Your task to perform on an android device: Is it going to rain tomorrow? Image 0: 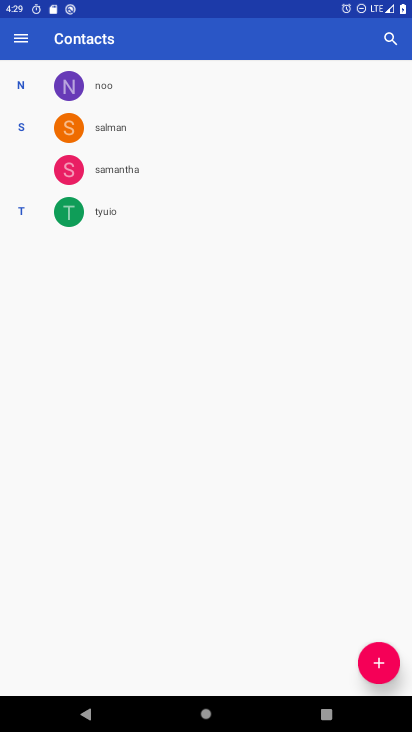
Step 0: press home button
Your task to perform on an android device: Is it going to rain tomorrow? Image 1: 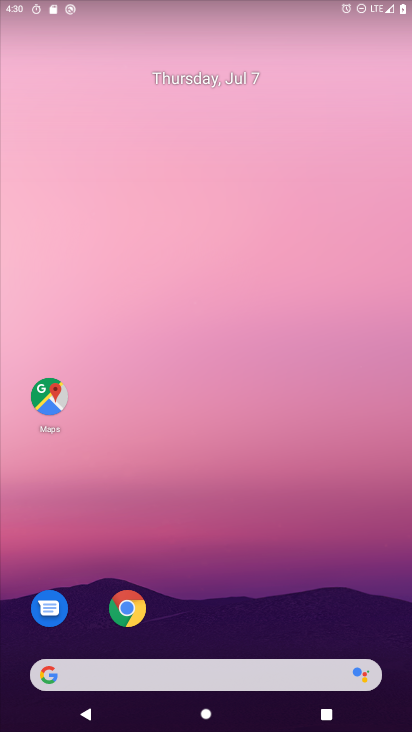
Step 1: drag from (242, 698) to (226, 113)
Your task to perform on an android device: Is it going to rain tomorrow? Image 2: 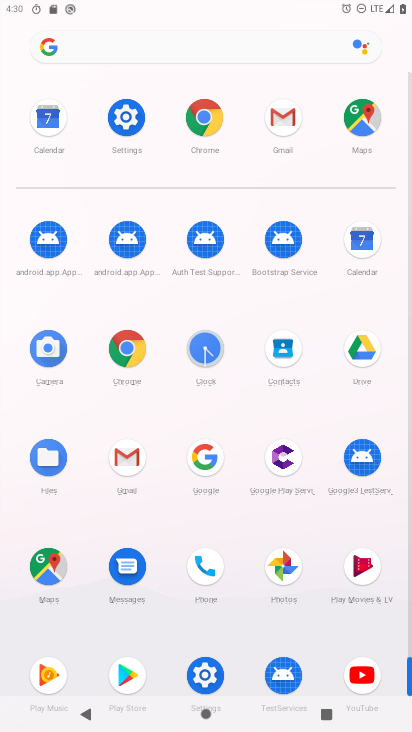
Step 2: click (201, 456)
Your task to perform on an android device: Is it going to rain tomorrow? Image 3: 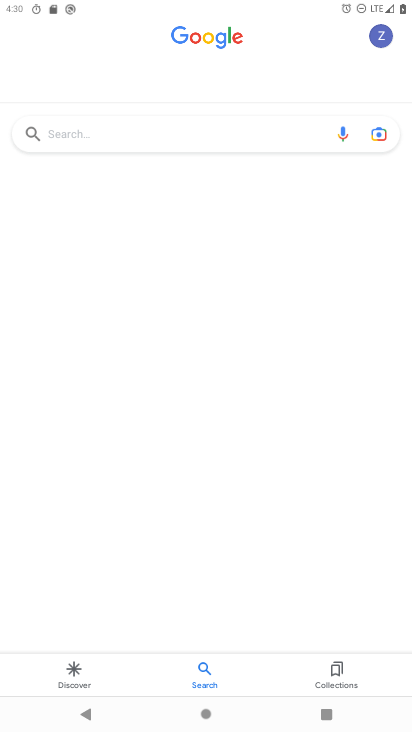
Step 3: click (209, 134)
Your task to perform on an android device: Is it going to rain tomorrow? Image 4: 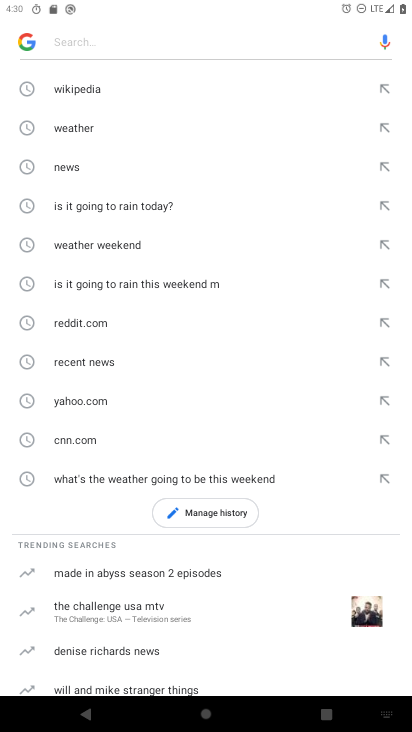
Step 4: click (84, 125)
Your task to perform on an android device: Is it going to rain tomorrow? Image 5: 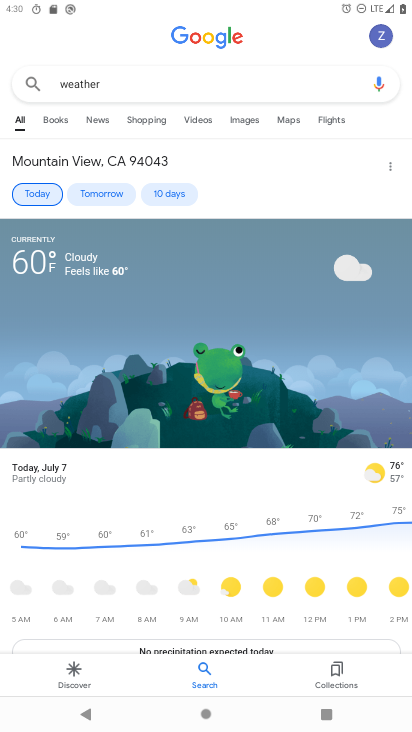
Step 5: click (98, 191)
Your task to perform on an android device: Is it going to rain tomorrow? Image 6: 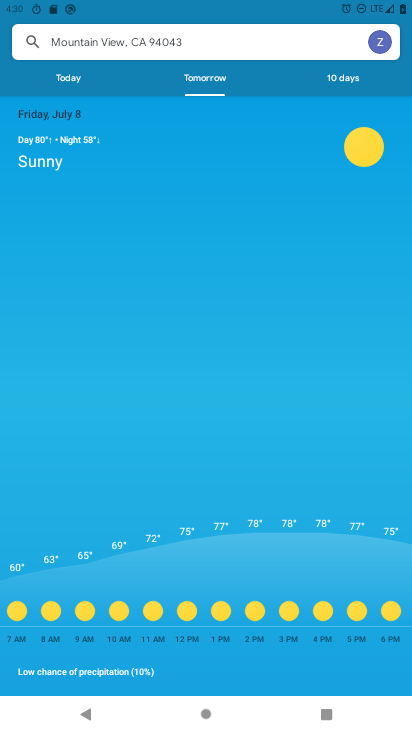
Step 6: task complete